Your task to perform on an android device: turn off data saver in the chrome app Image 0: 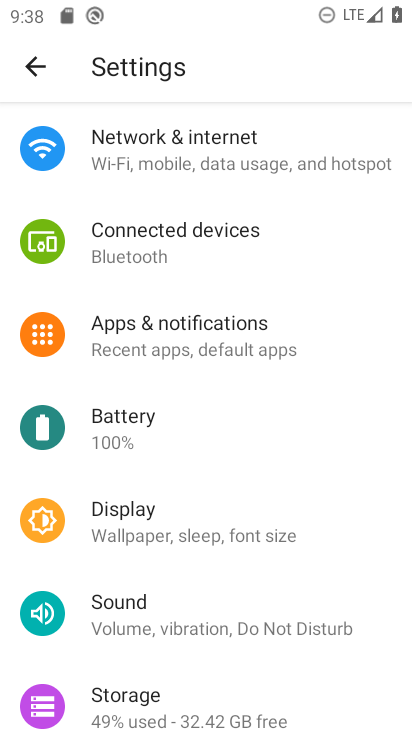
Step 0: press home button
Your task to perform on an android device: turn off data saver in the chrome app Image 1: 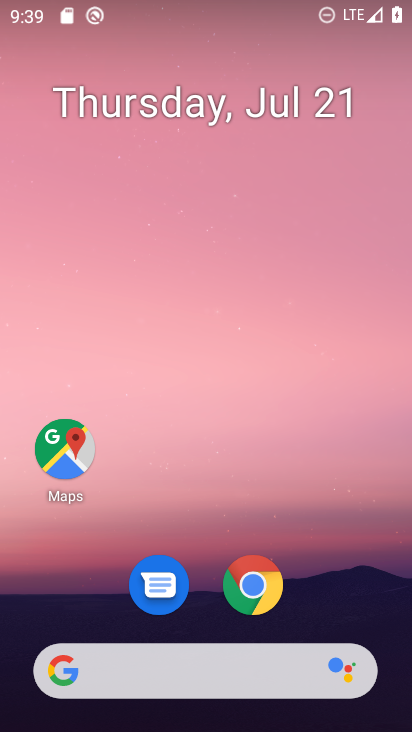
Step 1: click (260, 591)
Your task to perform on an android device: turn off data saver in the chrome app Image 2: 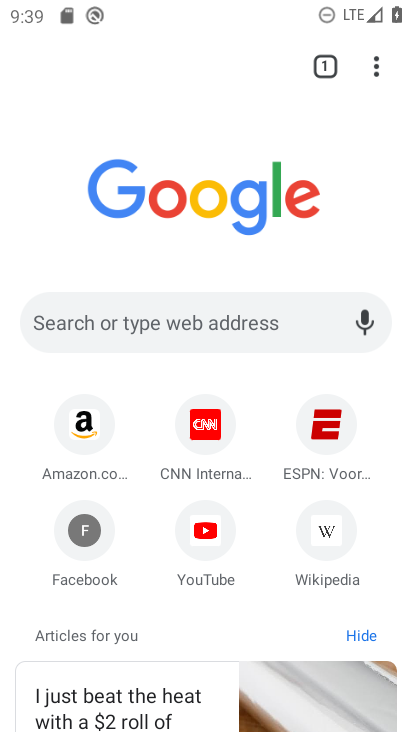
Step 2: click (375, 69)
Your task to perform on an android device: turn off data saver in the chrome app Image 3: 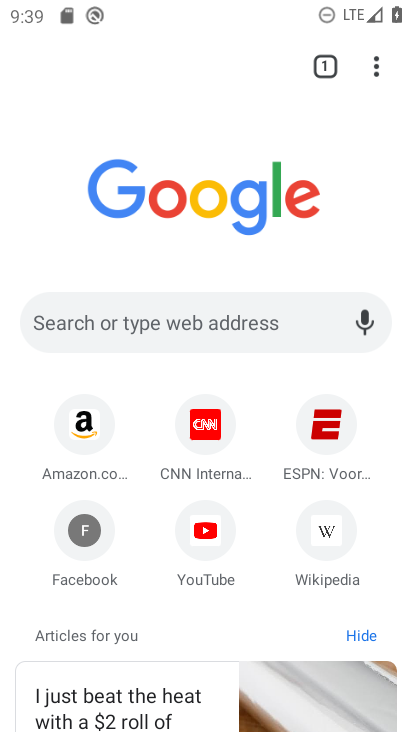
Step 3: click (375, 69)
Your task to perform on an android device: turn off data saver in the chrome app Image 4: 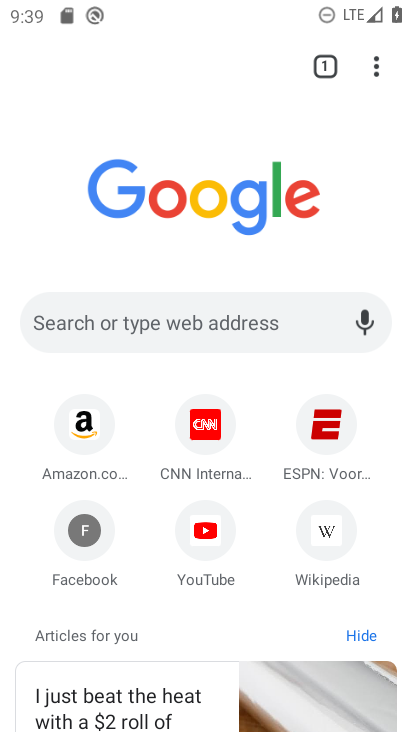
Step 4: click (375, 69)
Your task to perform on an android device: turn off data saver in the chrome app Image 5: 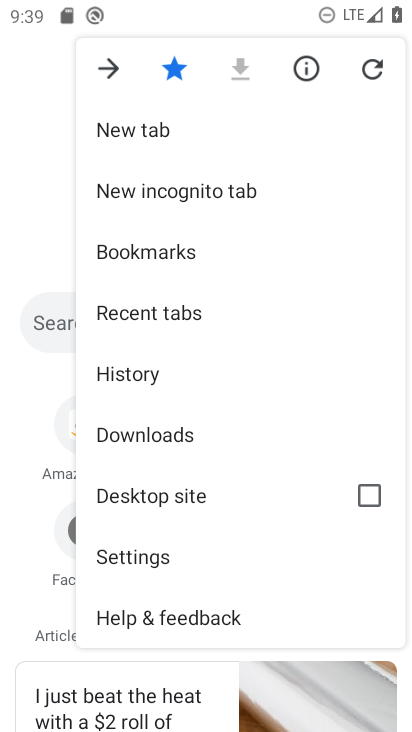
Step 5: click (154, 562)
Your task to perform on an android device: turn off data saver in the chrome app Image 6: 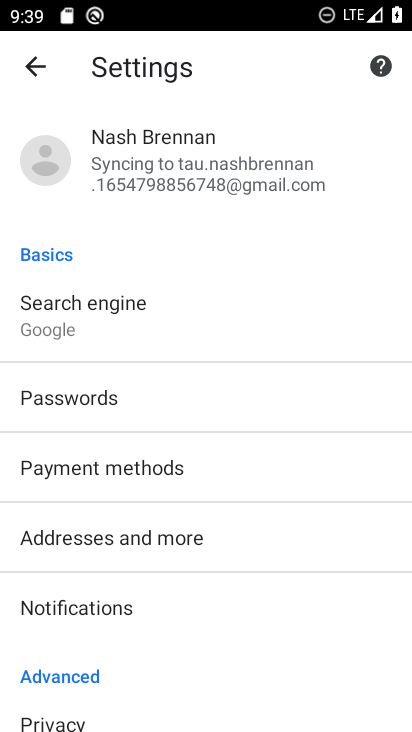
Step 6: drag from (212, 624) to (233, 223)
Your task to perform on an android device: turn off data saver in the chrome app Image 7: 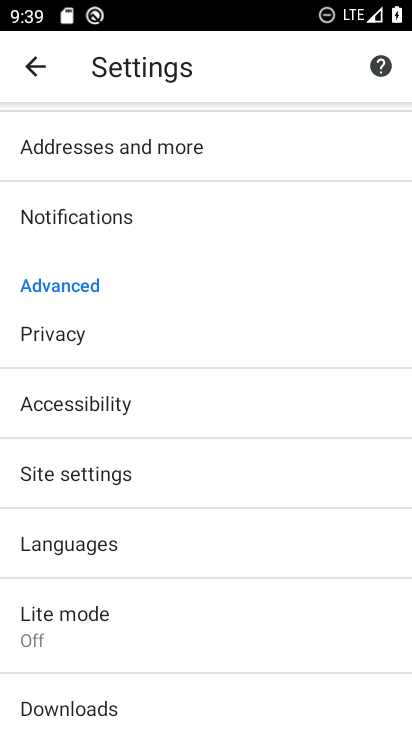
Step 7: click (129, 629)
Your task to perform on an android device: turn off data saver in the chrome app Image 8: 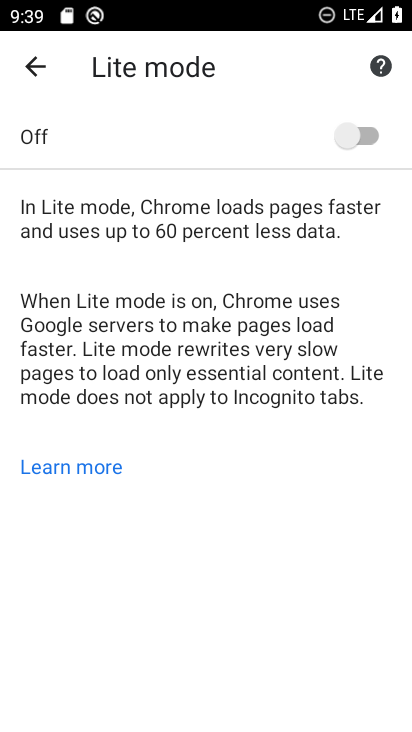
Step 8: task complete